Your task to perform on an android device: Is it going to rain this weekend? Image 0: 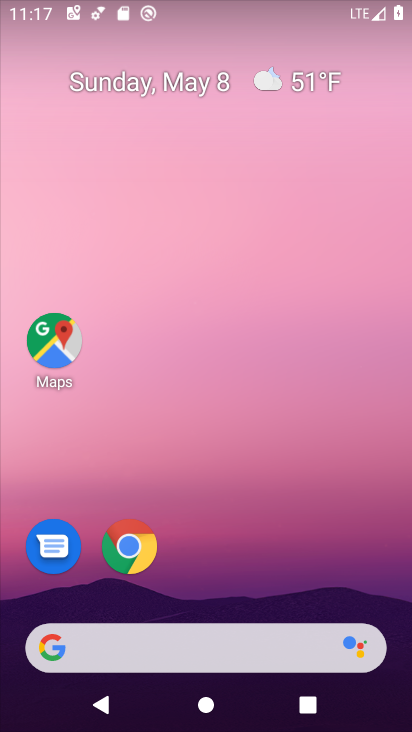
Step 0: click (305, 82)
Your task to perform on an android device: Is it going to rain this weekend? Image 1: 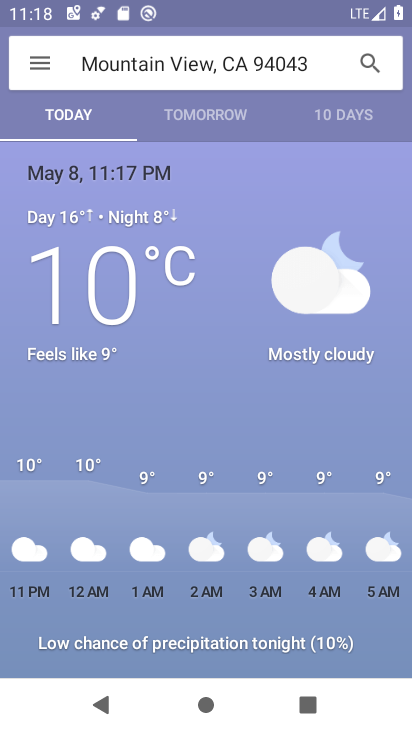
Step 1: click (346, 110)
Your task to perform on an android device: Is it going to rain this weekend? Image 2: 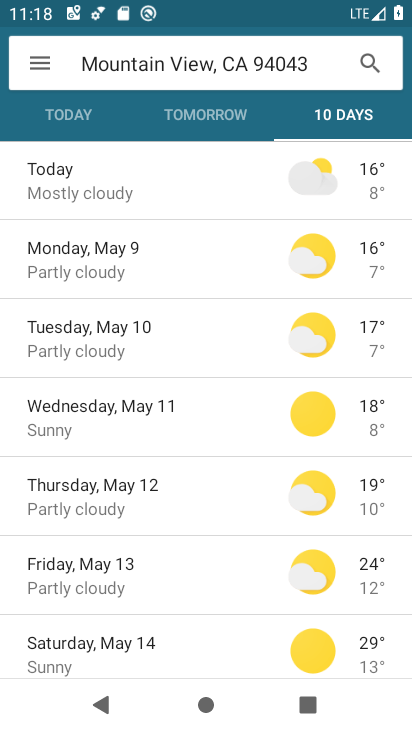
Step 2: task complete